Your task to perform on an android device: Open Reddit.com Image 0: 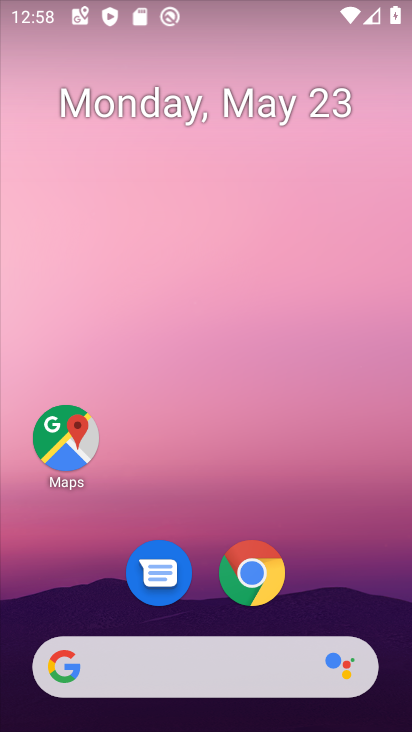
Step 0: drag from (232, 651) to (221, 160)
Your task to perform on an android device: Open Reddit.com Image 1: 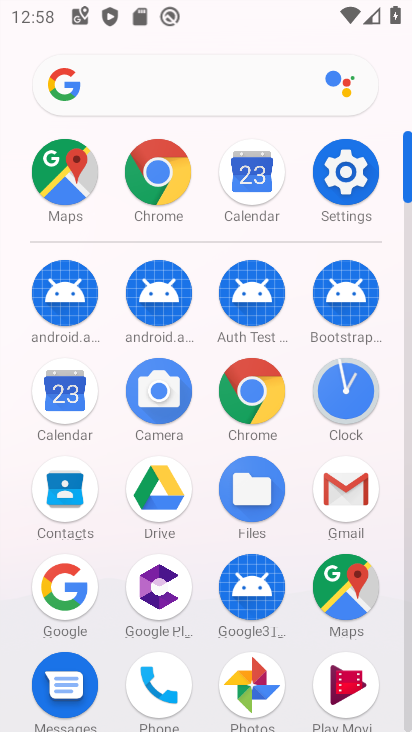
Step 1: click (272, 394)
Your task to perform on an android device: Open Reddit.com Image 2: 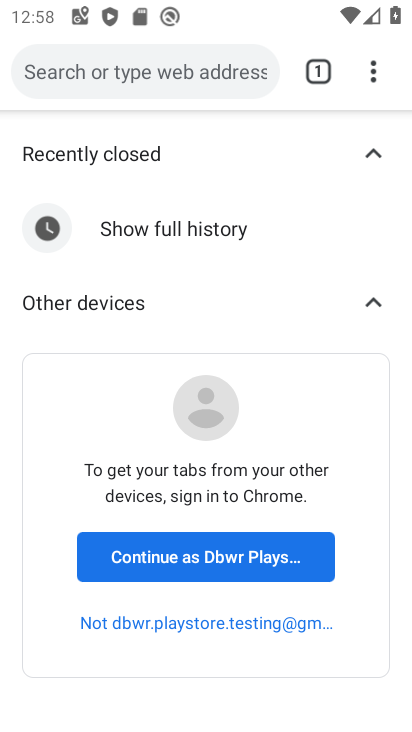
Step 2: click (172, 59)
Your task to perform on an android device: Open Reddit.com Image 3: 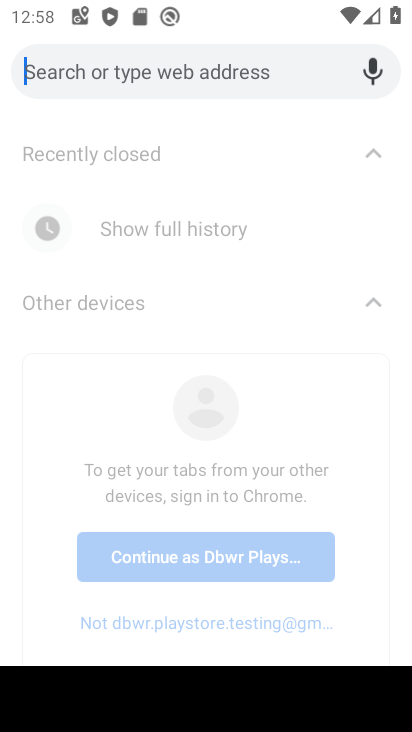
Step 3: type "reddit.com"
Your task to perform on an android device: Open Reddit.com Image 4: 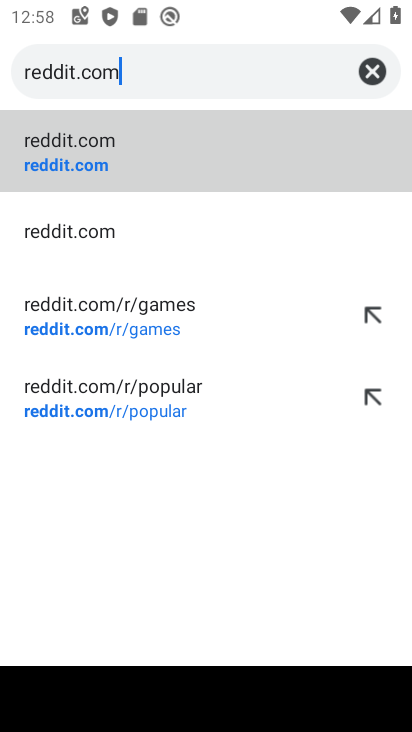
Step 4: click (164, 173)
Your task to perform on an android device: Open Reddit.com Image 5: 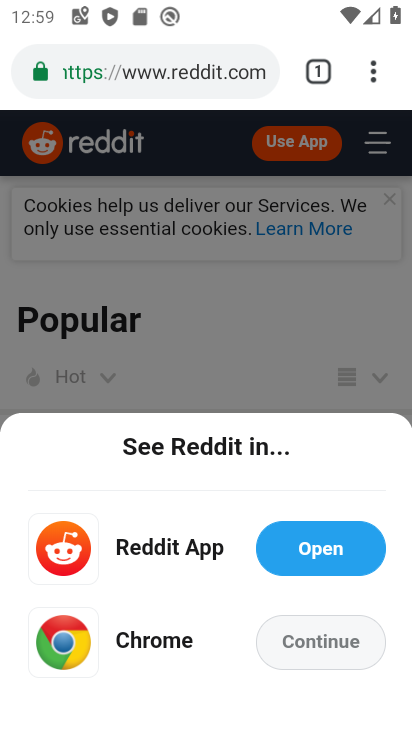
Step 5: task complete